Your task to perform on an android device: What's a goodrestaurant in Austin? Image 0: 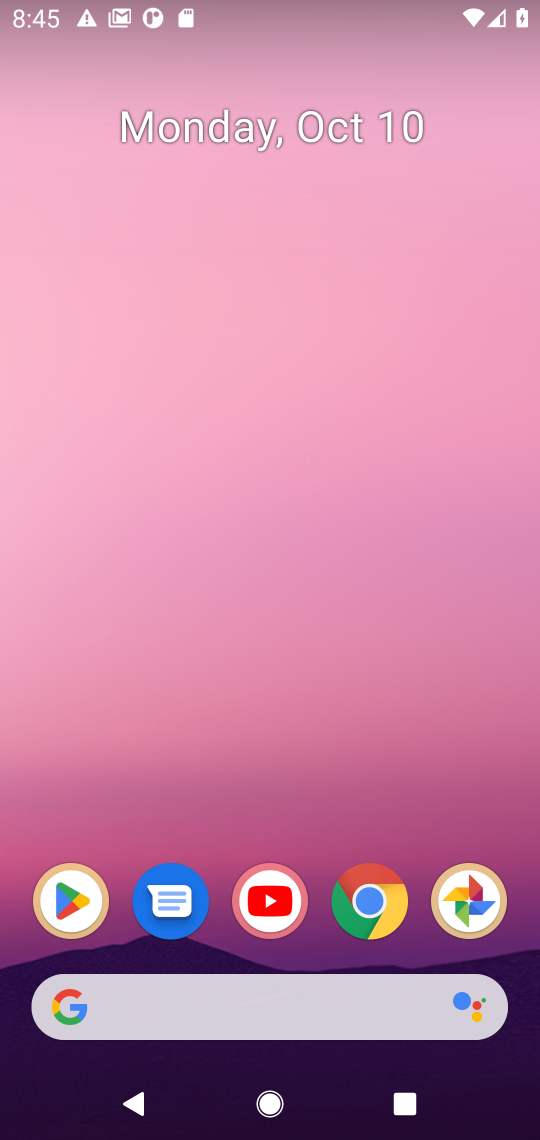
Step 0: press home button
Your task to perform on an android device: What's a goodrestaurant in Austin? Image 1: 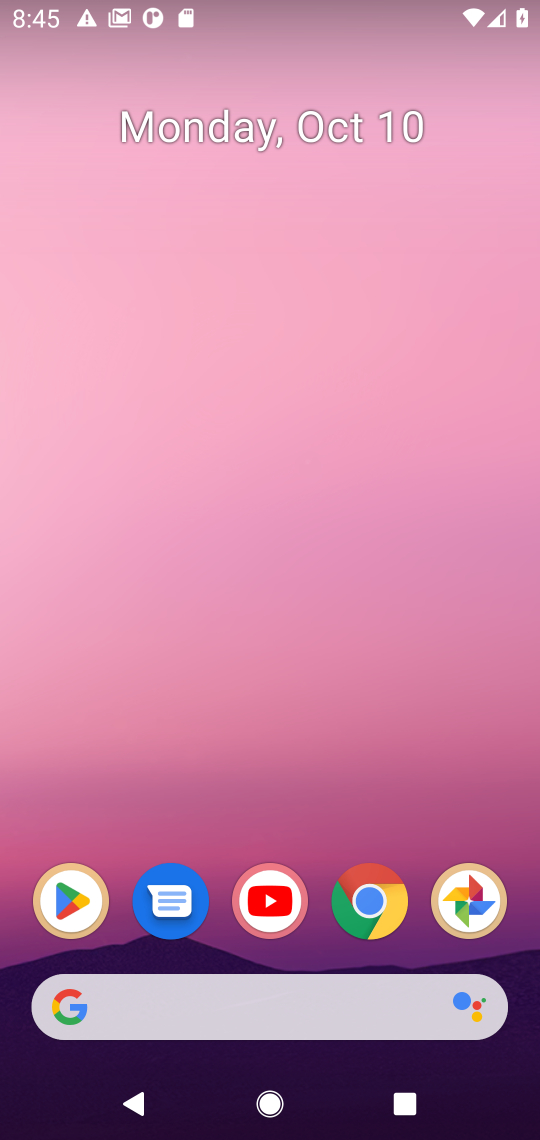
Step 1: click (393, 1012)
Your task to perform on an android device: What's a goodrestaurant in Austin? Image 2: 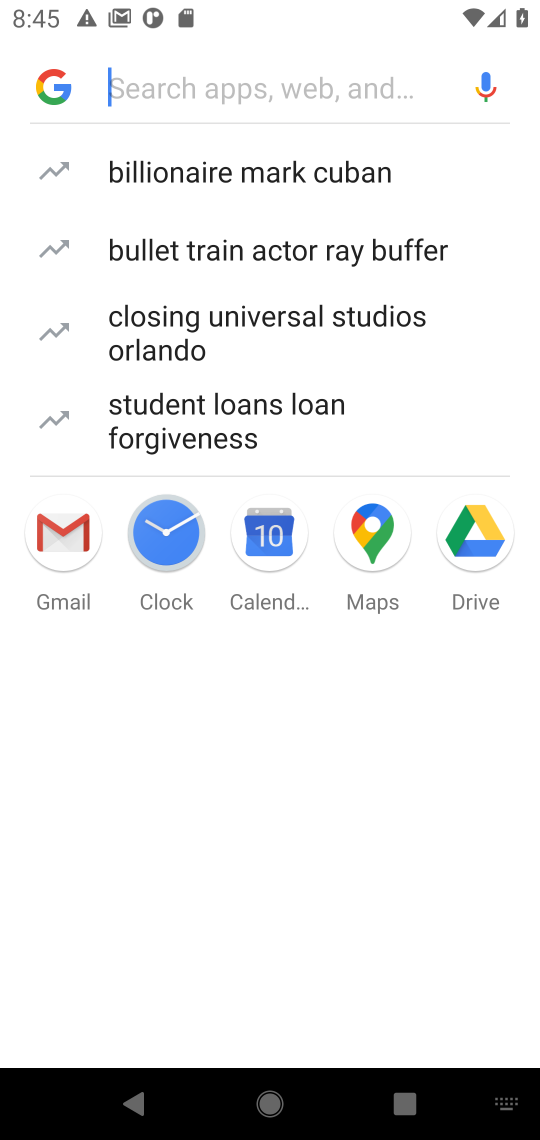
Step 2: type "What's a goodrestaurant in Austin?"
Your task to perform on an android device: What's a goodrestaurant in Austin? Image 3: 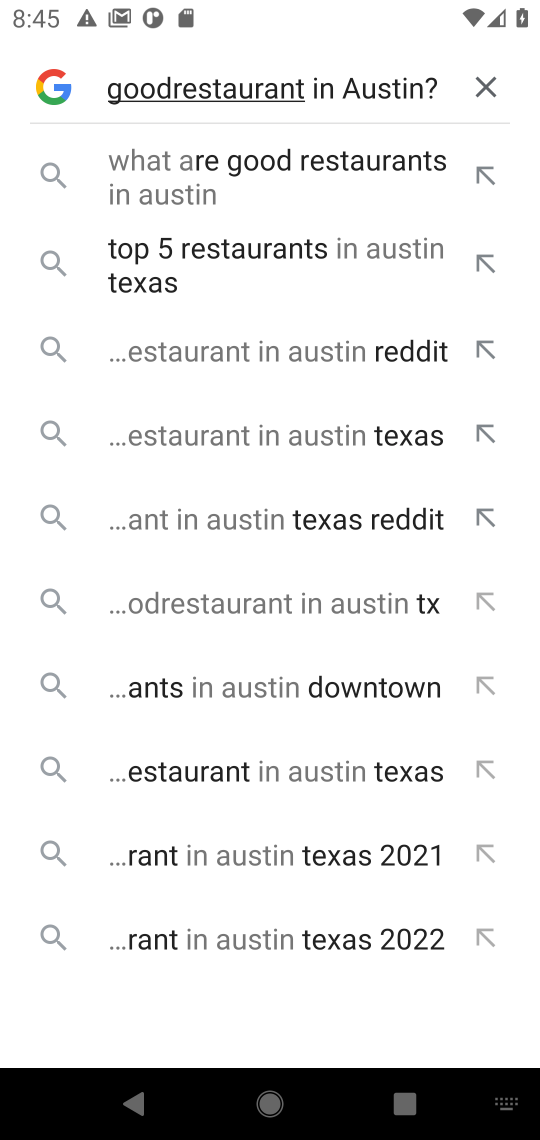
Step 3: press enter
Your task to perform on an android device: What's a goodrestaurant in Austin? Image 4: 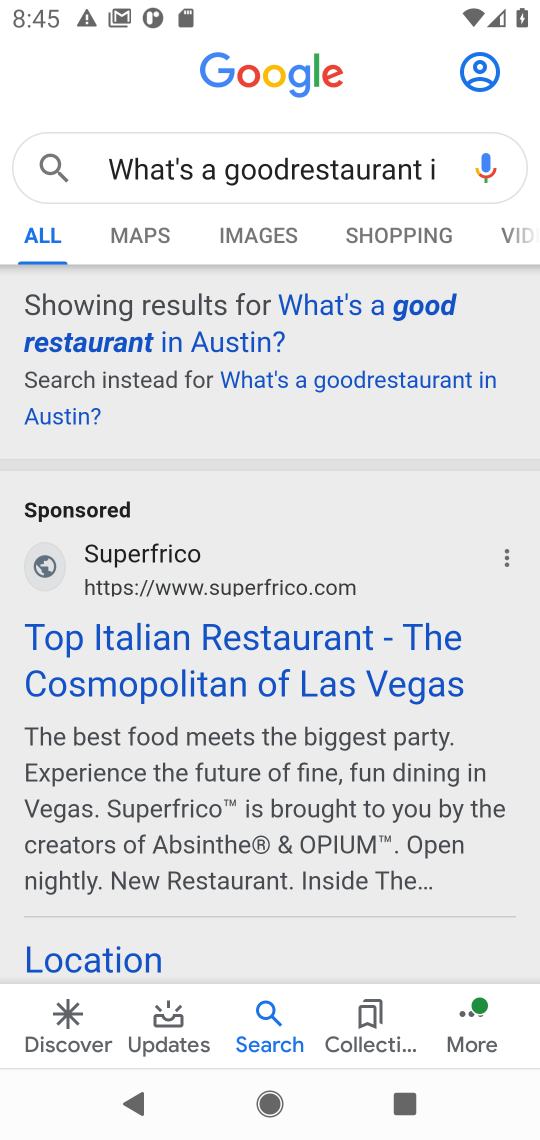
Step 4: click (387, 299)
Your task to perform on an android device: What's a goodrestaurant in Austin? Image 5: 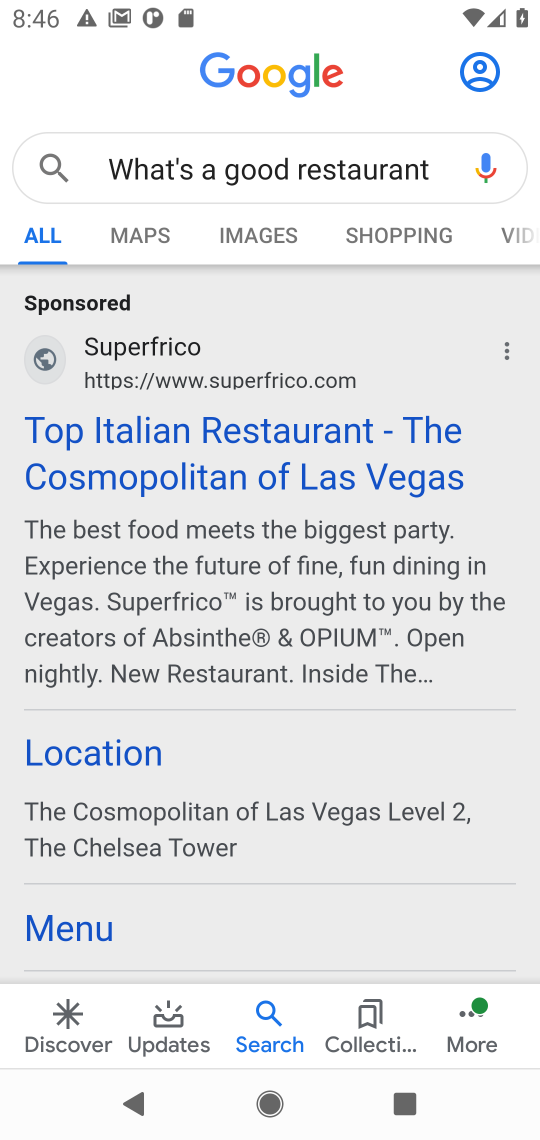
Step 5: task complete